Your task to perform on an android device: Go to network settings Image 0: 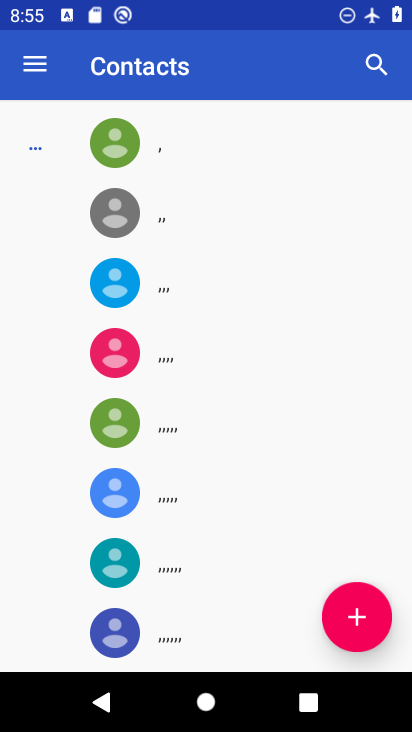
Step 0: drag from (211, 18) to (212, 390)
Your task to perform on an android device: Go to network settings Image 1: 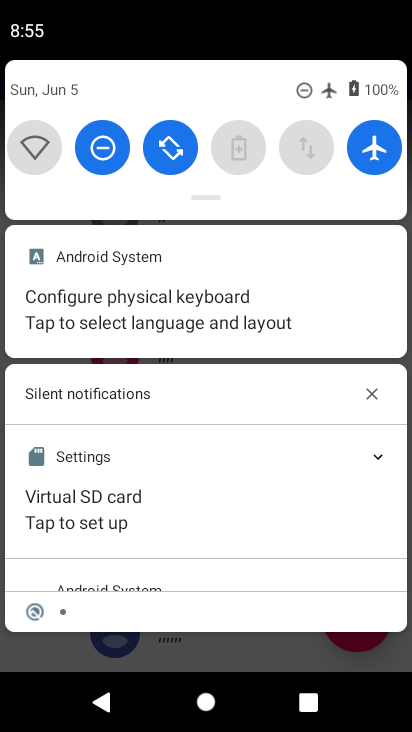
Step 1: click (302, 141)
Your task to perform on an android device: Go to network settings Image 2: 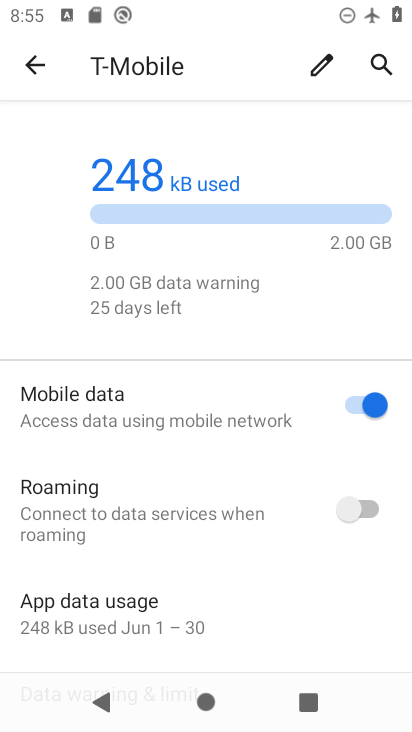
Step 2: task complete